Your task to perform on an android device: turn on the 24-hour format for clock Image 0: 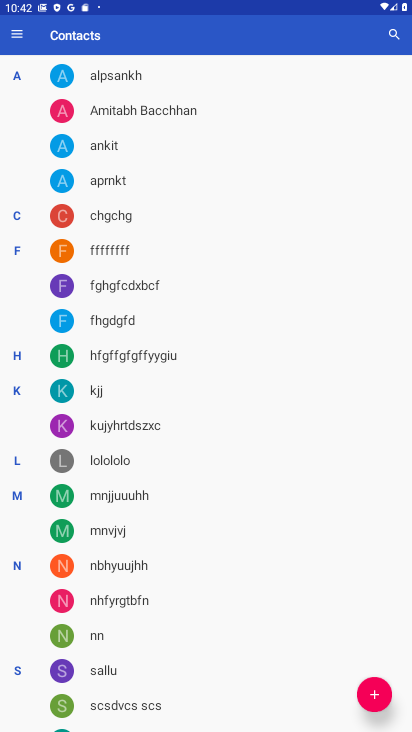
Step 0: press home button
Your task to perform on an android device: turn on the 24-hour format for clock Image 1: 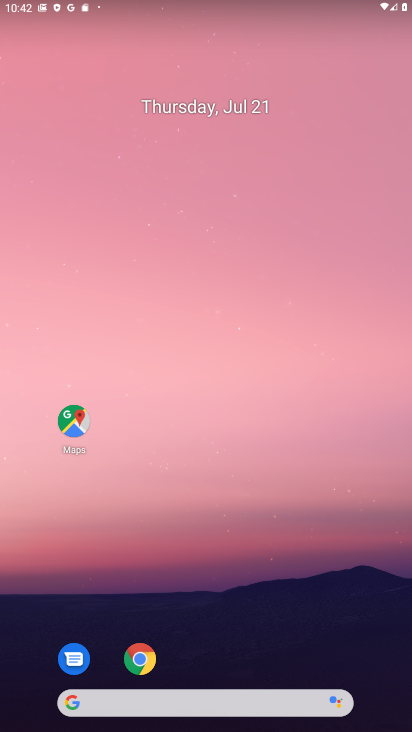
Step 1: drag from (191, 700) to (272, 114)
Your task to perform on an android device: turn on the 24-hour format for clock Image 2: 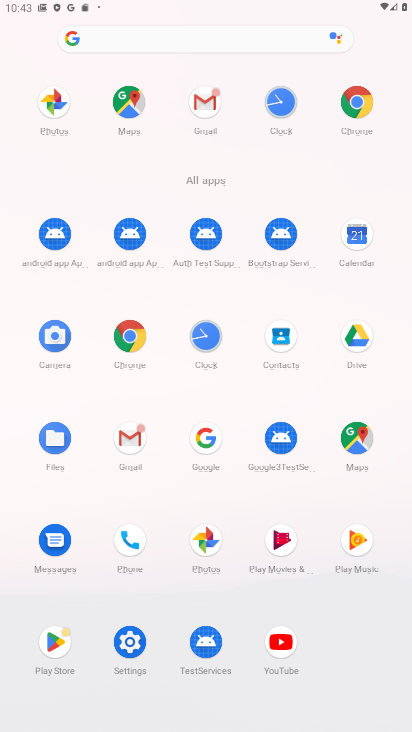
Step 2: click (283, 102)
Your task to perform on an android device: turn on the 24-hour format for clock Image 3: 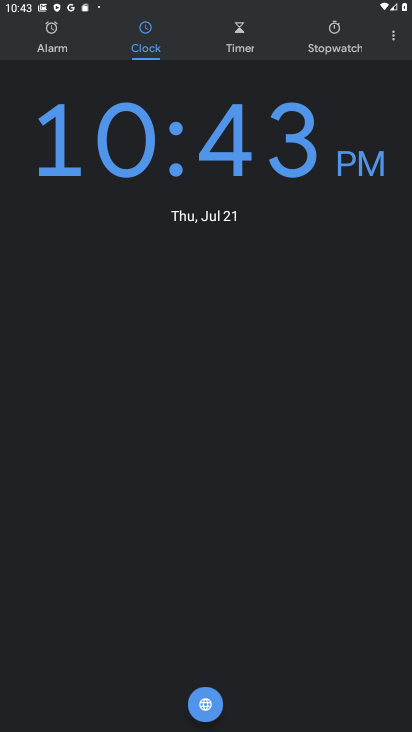
Step 3: click (394, 38)
Your task to perform on an android device: turn on the 24-hour format for clock Image 4: 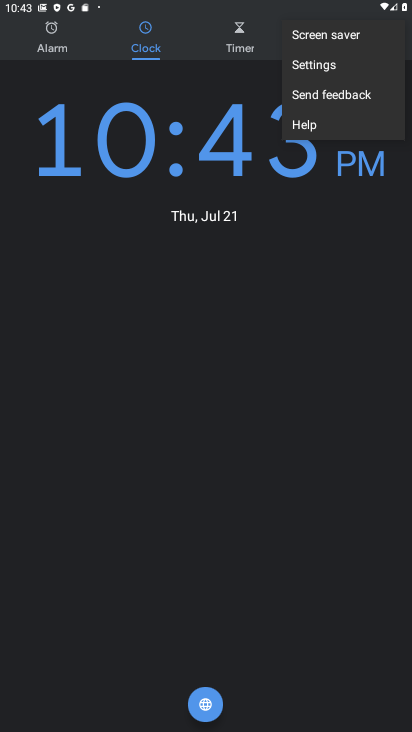
Step 4: click (329, 64)
Your task to perform on an android device: turn on the 24-hour format for clock Image 5: 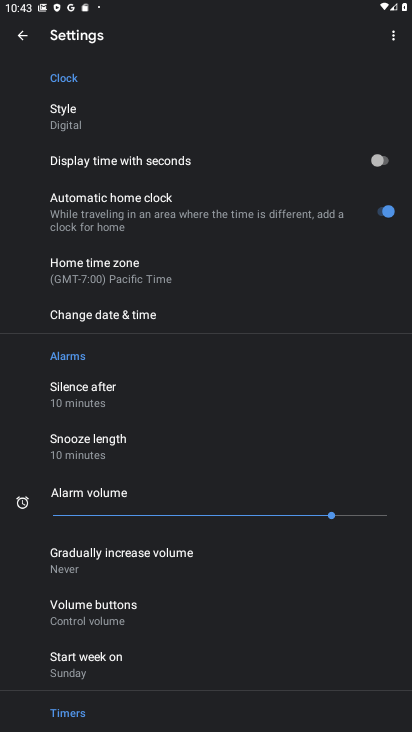
Step 5: click (103, 311)
Your task to perform on an android device: turn on the 24-hour format for clock Image 6: 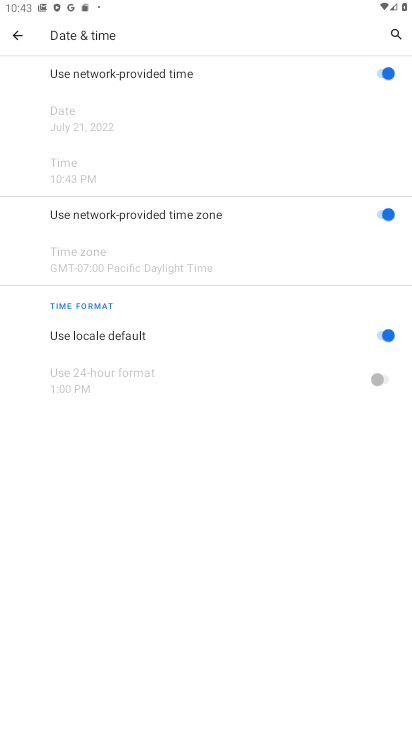
Step 6: click (388, 333)
Your task to perform on an android device: turn on the 24-hour format for clock Image 7: 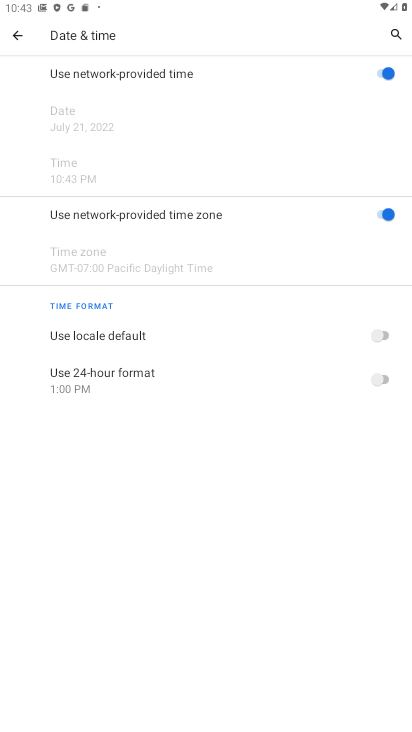
Step 7: click (386, 381)
Your task to perform on an android device: turn on the 24-hour format for clock Image 8: 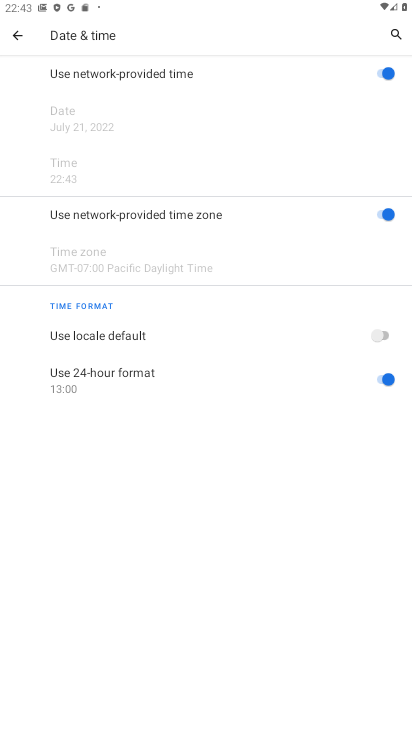
Step 8: task complete